Your task to perform on an android device: delete the emails in spam in the gmail app Image 0: 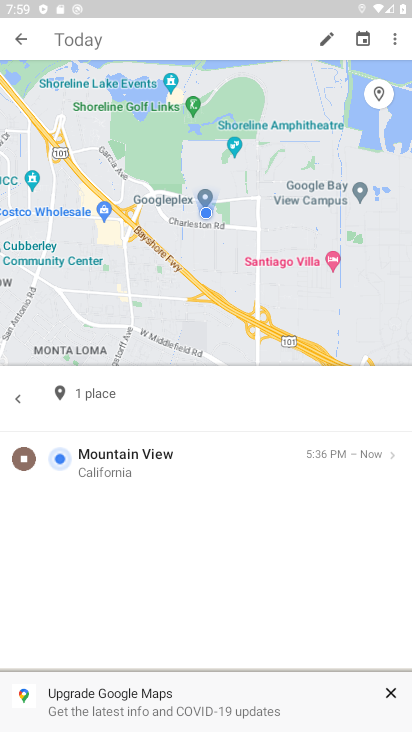
Step 0: press home button
Your task to perform on an android device: delete the emails in spam in the gmail app Image 1: 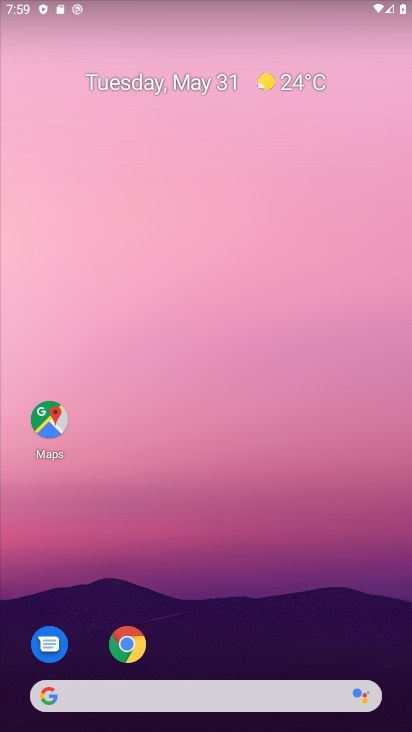
Step 1: drag from (256, 596) to (265, 183)
Your task to perform on an android device: delete the emails in spam in the gmail app Image 2: 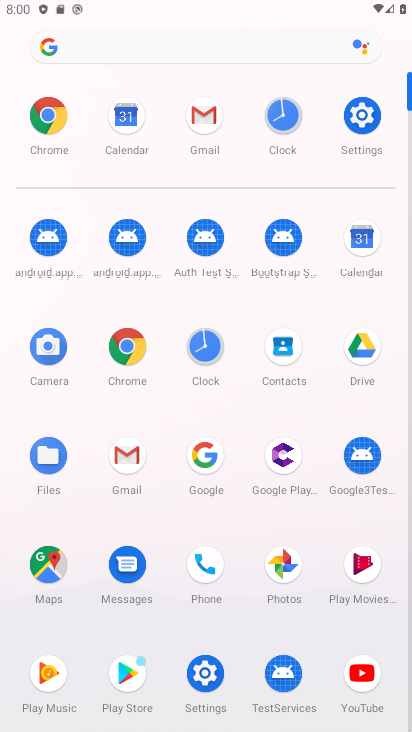
Step 2: click (139, 468)
Your task to perform on an android device: delete the emails in spam in the gmail app Image 3: 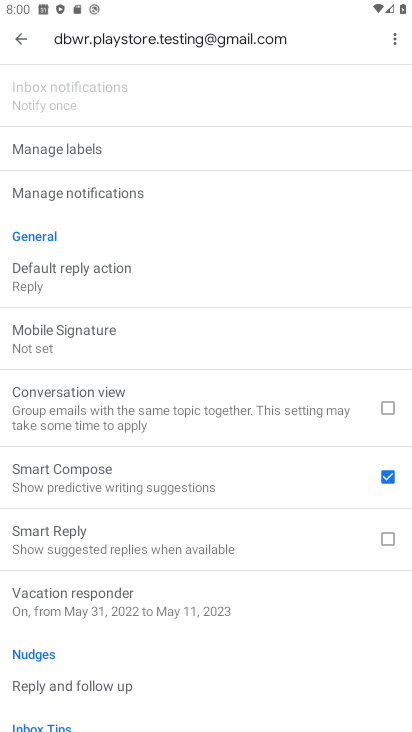
Step 3: click (26, 36)
Your task to perform on an android device: delete the emails in spam in the gmail app Image 4: 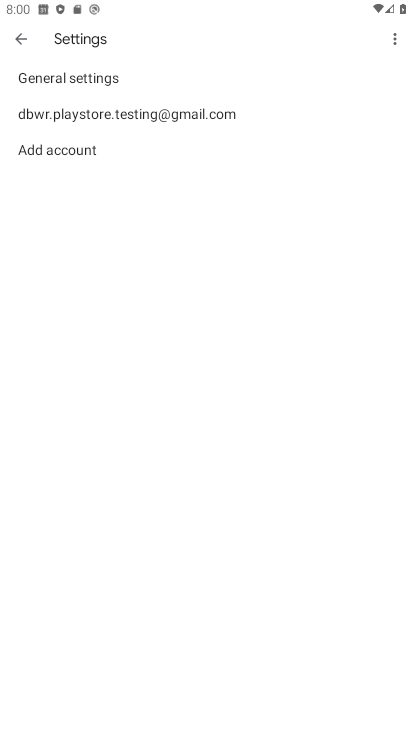
Step 4: click (25, 35)
Your task to perform on an android device: delete the emails in spam in the gmail app Image 5: 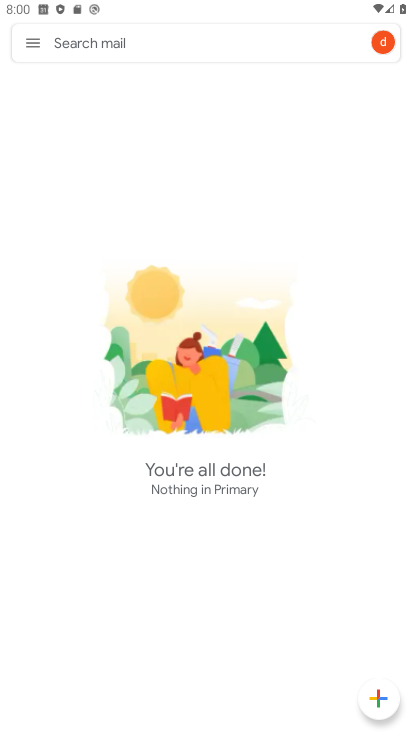
Step 5: click (25, 35)
Your task to perform on an android device: delete the emails in spam in the gmail app Image 6: 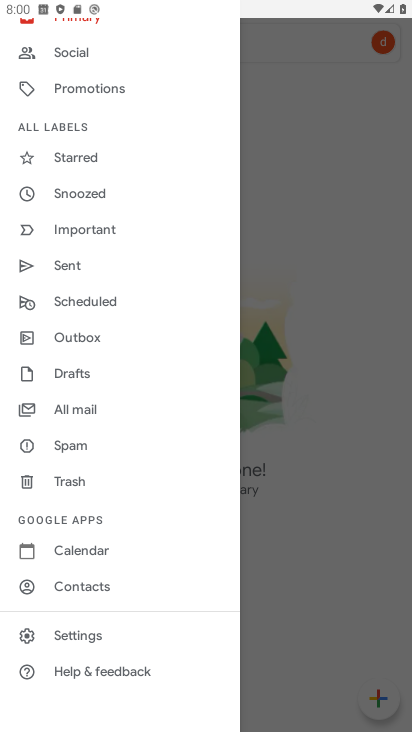
Step 6: click (110, 638)
Your task to perform on an android device: delete the emails in spam in the gmail app Image 7: 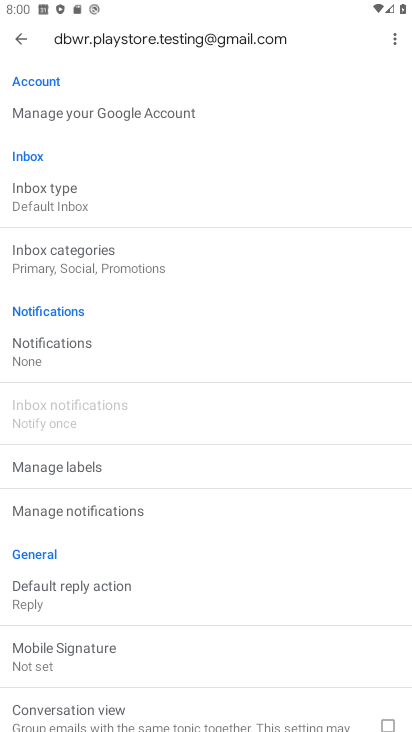
Step 7: click (26, 31)
Your task to perform on an android device: delete the emails in spam in the gmail app Image 8: 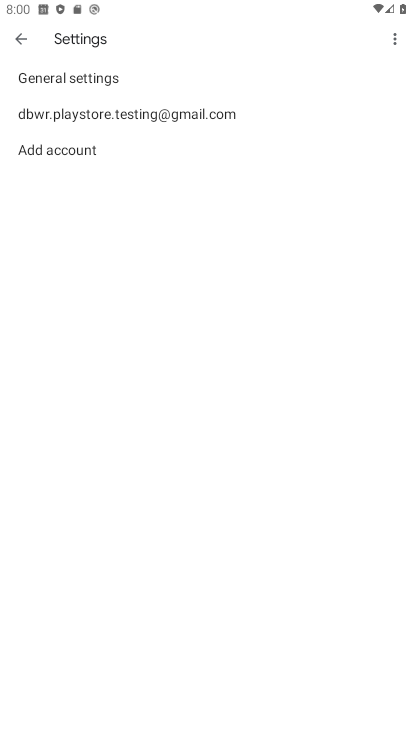
Step 8: click (20, 38)
Your task to perform on an android device: delete the emails in spam in the gmail app Image 9: 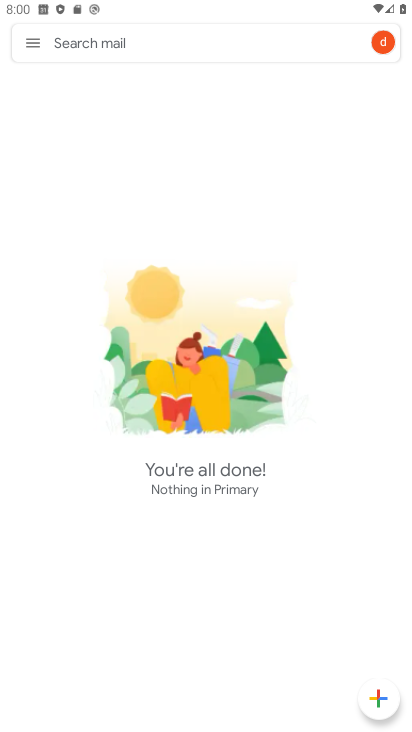
Step 9: click (40, 38)
Your task to perform on an android device: delete the emails in spam in the gmail app Image 10: 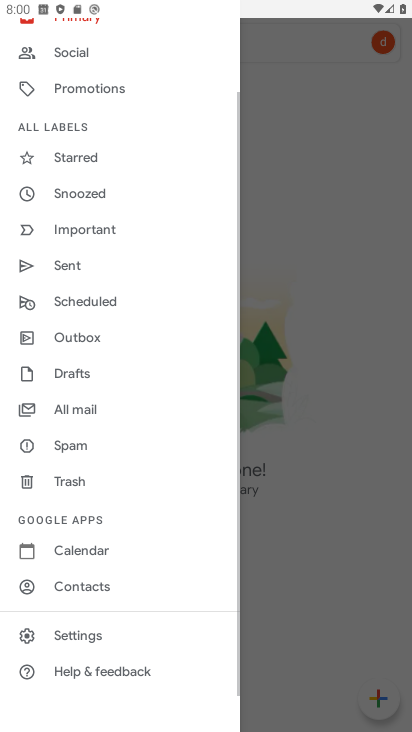
Step 10: click (139, 433)
Your task to perform on an android device: delete the emails in spam in the gmail app Image 11: 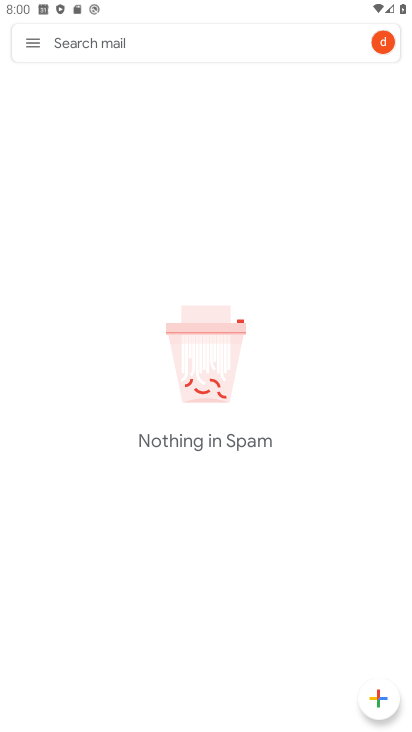
Step 11: task complete